Your task to perform on an android device: What is the recent news? Image 0: 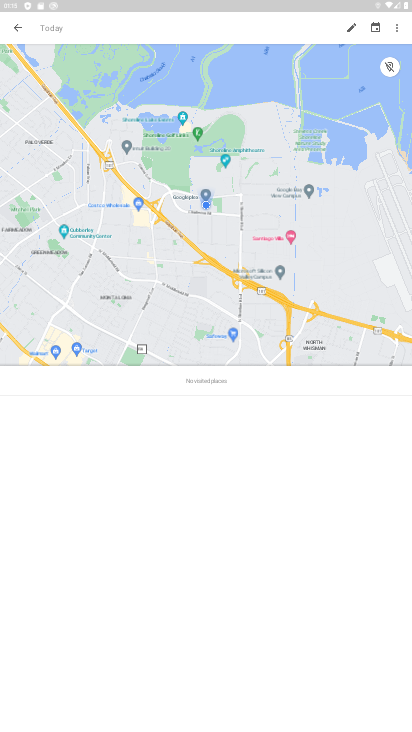
Step 0: press home button
Your task to perform on an android device: What is the recent news? Image 1: 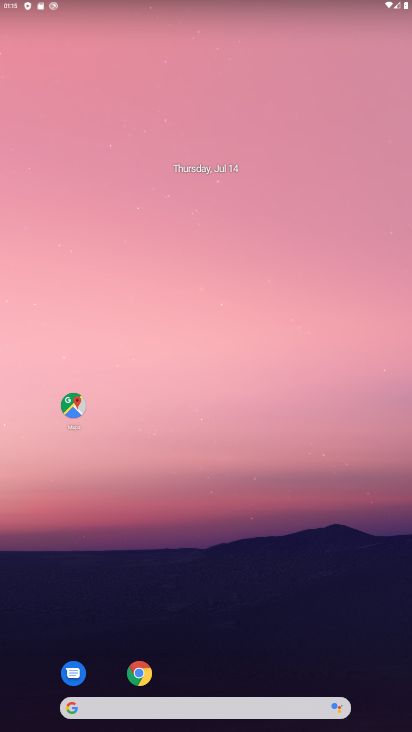
Step 1: drag from (269, 643) to (267, 314)
Your task to perform on an android device: What is the recent news? Image 2: 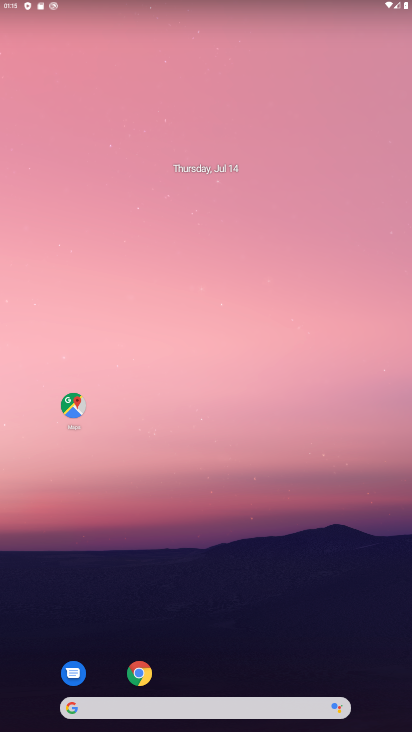
Step 2: drag from (228, 631) to (231, 187)
Your task to perform on an android device: What is the recent news? Image 3: 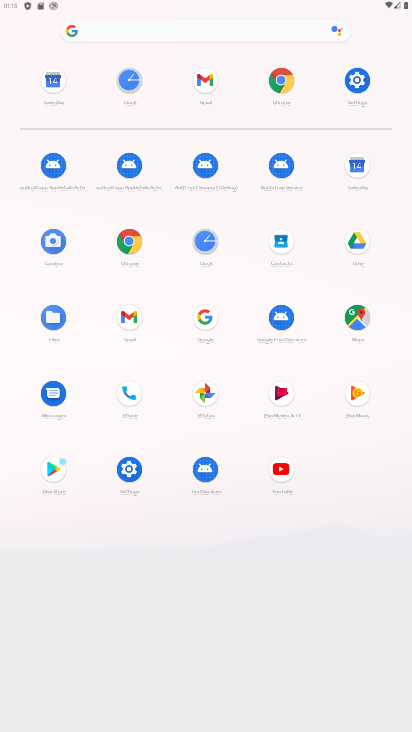
Step 3: click (179, 21)
Your task to perform on an android device: What is the recent news? Image 4: 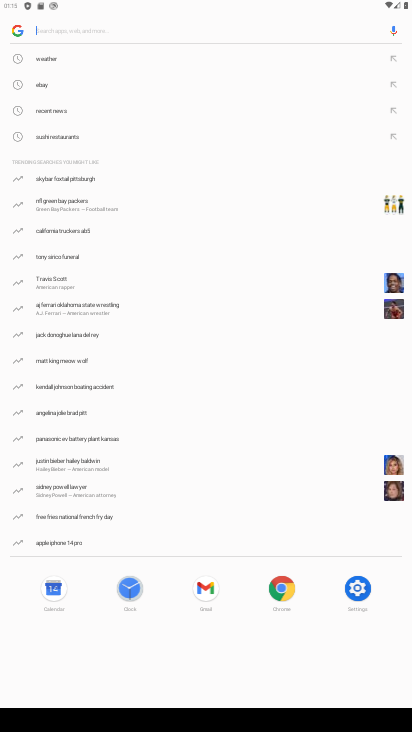
Step 4: type "news"
Your task to perform on an android device: What is the recent news? Image 5: 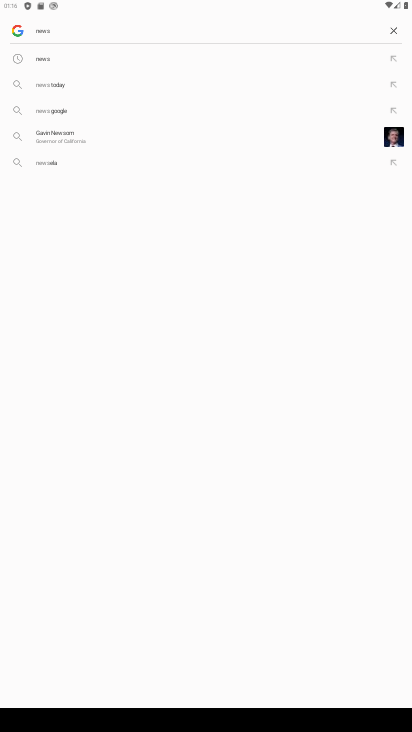
Step 5: click (137, 51)
Your task to perform on an android device: What is the recent news? Image 6: 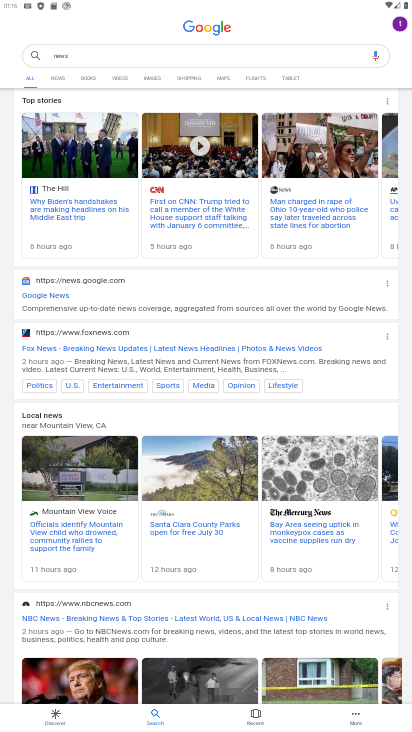
Step 6: task complete